Your task to perform on an android device: open app "Mercado Libre" (install if not already installed) and enter user name: "tolerating@yahoo.com" and password: "Kepler" Image 0: 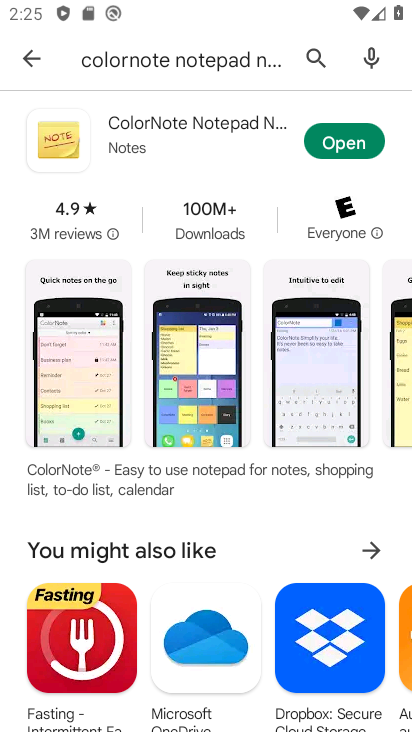
Step 0: click (316, 51)
Your task to perform on an android device: open app "Mercado Libre" (install if not already installed) and enter user name: "tolerating@yahoo.com" and password: "Kepler" Image 1: 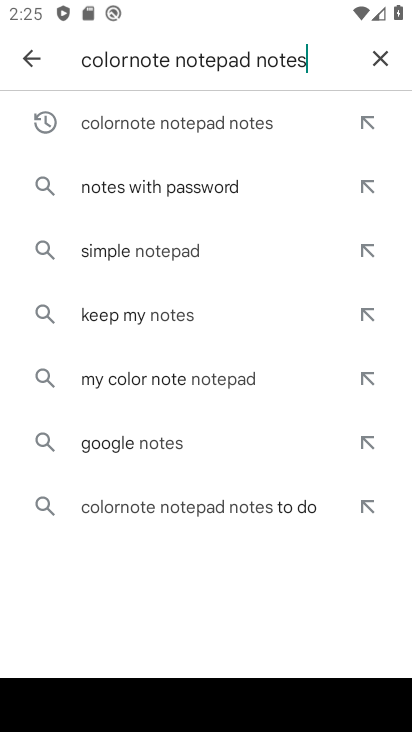
Step 1: click (371, 56)
Your task to perform on an android device: open app "Mercado Libre" (install if not already installed) and enter user name: "tolerating@yahoo.com" and password: "Kepler" Image 2: 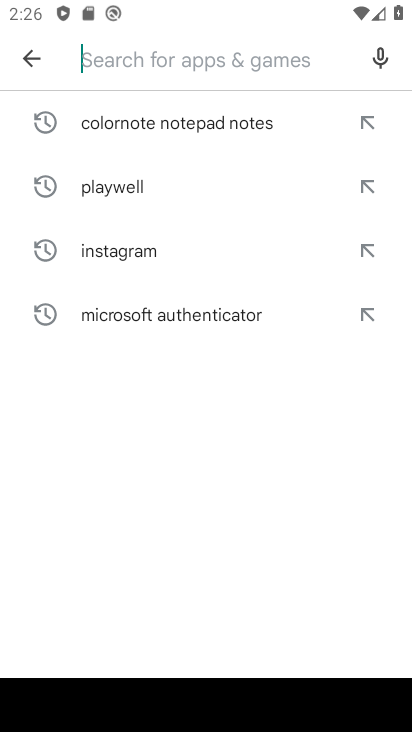
Step 2: click (150, 65)
Your task to perform on an android device: open app "Mercado Libre" (install if not already installed) and enter user name: "tolerating@yahoo.com" and password: "Kepler" Image 3: 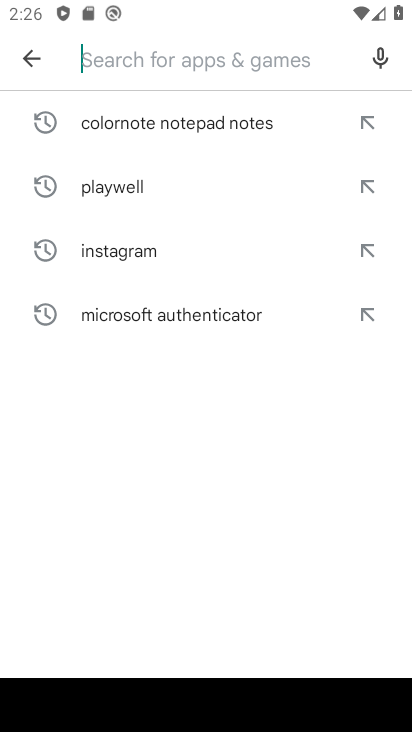
Step 3: type "Mercado Libre"
Your task to perform on an android device: open app "Mercado Libre" (install if not already installed) and enter user name: "tolerating@yahoo.com" and password: "Kepler" Image 4: 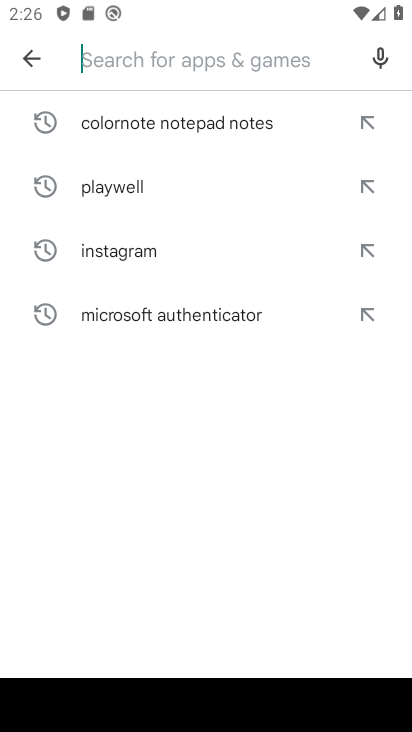
Step 4: click (261, 524)
Your task to perform on an android device: open app "Mercado Libre" (install if not already installed) and enter user name: "tolerating@yahoo.com" and password: "Kepler" Image 5: 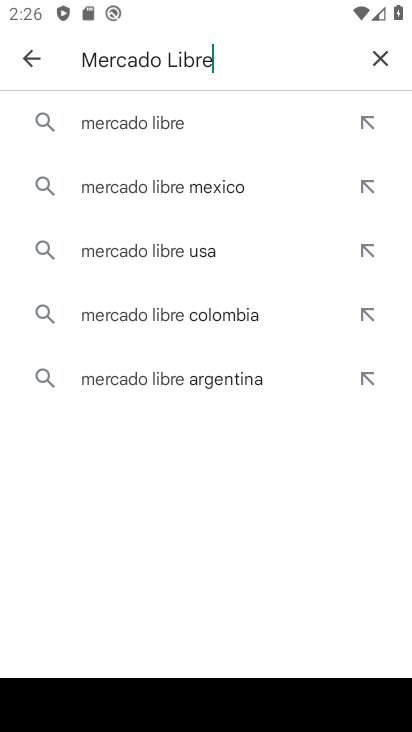
Step 5: click (157, 107)
Your task to perform on an android device: open app "Mercado Libre" (install if not already installed) and enter user name: "tolerating@yahoo.com" and password: "Kepler" Image 6: 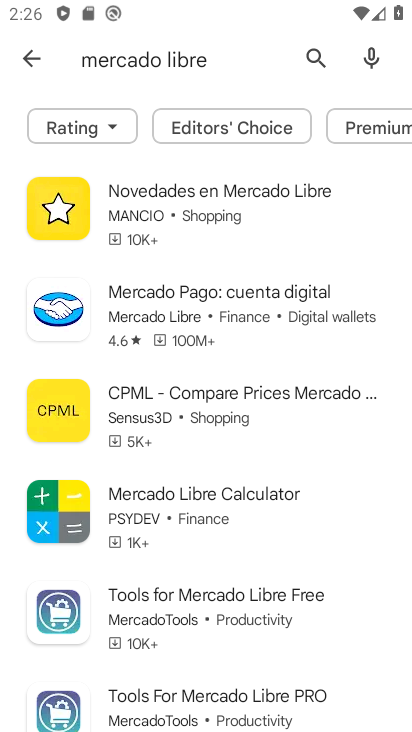
Step 6: click (272, 218)
Your task to perform on an android device: open app "Mercado Libre" (install if not already installed) and enter user name: "tolerating@yahoo.com" and password: "Kepler" Image 7: 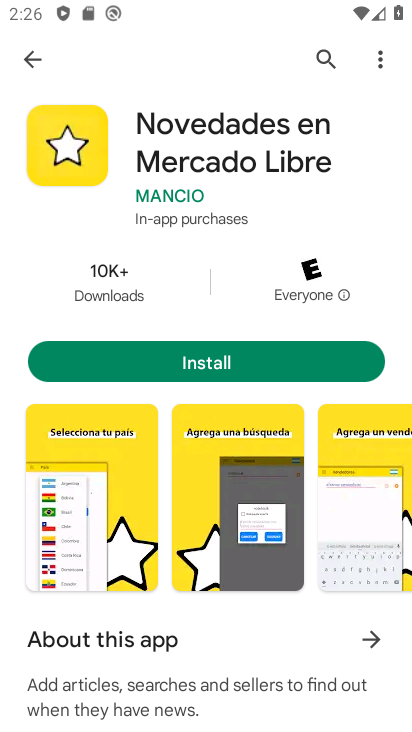
Step 7: click (200, 359)
Your task to perform on an android device: open app "Mercado Libre" (install if not already installed) and enter user name: "tolerating@yahoo.com" and password: "Kepler" Image 8: 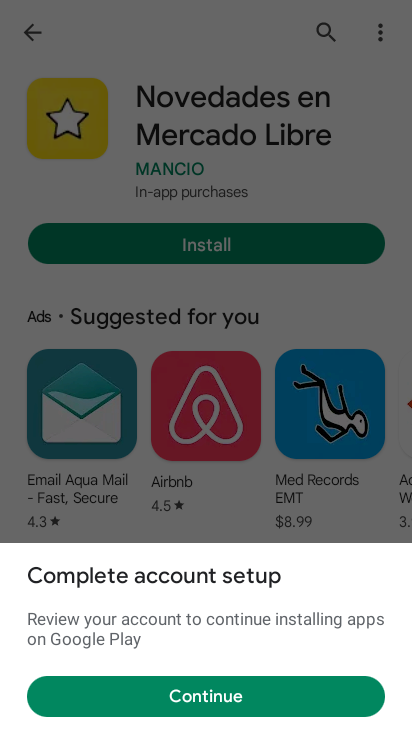
Step 8: click (125, 686)
Your task to perform on an android device: open app "Mercado Libre" (install if not already installed) and enter user name: "tolerating@yahoo.com" and password: "Kepler" Image 9: 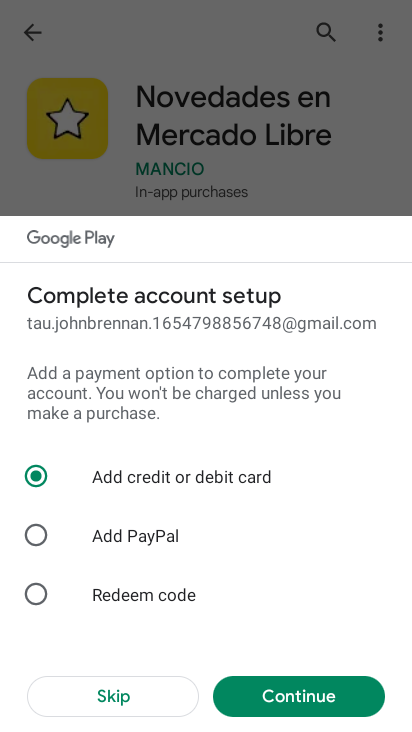
Step 9: click (97, 689)
Your task to perform on an android device: open app "Mercado Libre" (install if not already installed) and enter user name: "tolerating@yahoo.com" and password: "Kepler" Image 10: 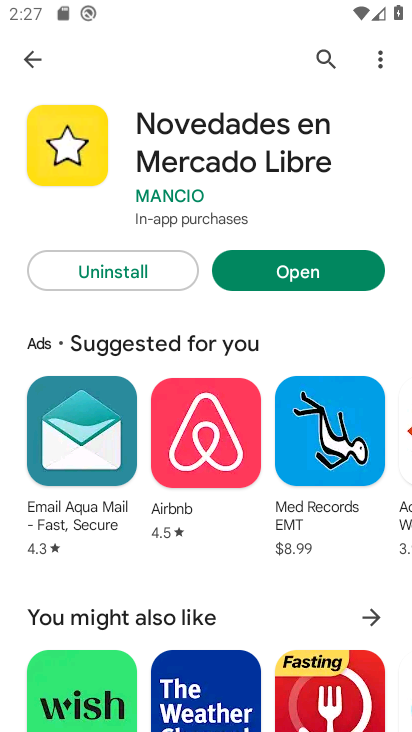
Step 10: click (299, 263)
Your task to perform on an android device: open app "Mercado Libre" (install if not already installed) and enter user name: "tolerating@yahoo.com" and password: "Kepler" Image 11: 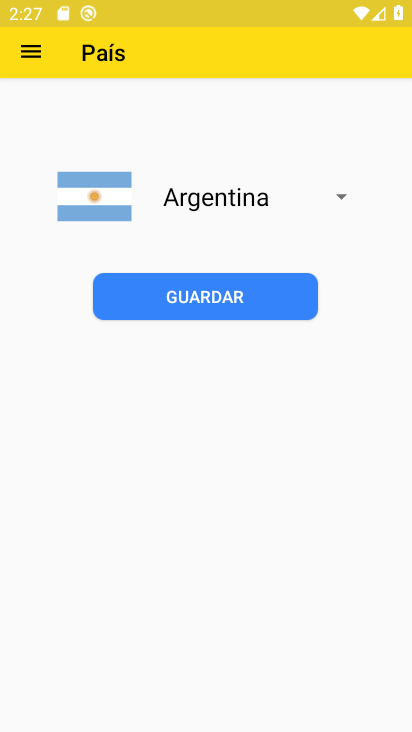
Step 11: click (339, 207)
Your task to perform on an android device: open app "Mercado Libre" (install if not already installed) and enter user name: "tolerating@yahoo.com" and password: "Kepler" Image 12: 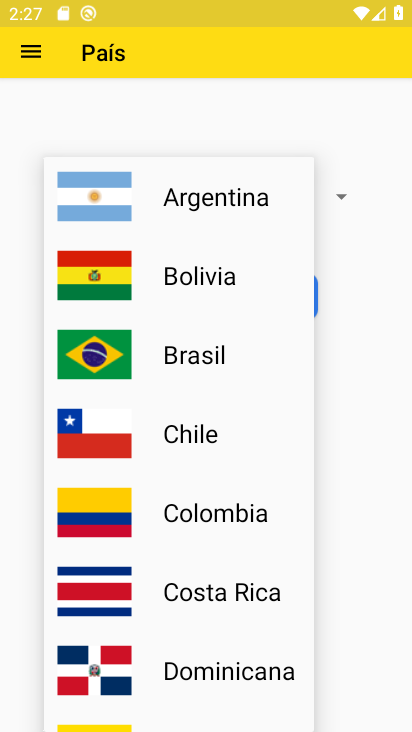
Step 12: drag from (183, 621) to (256, 172)
Your task to perform on an android device: open app "Mercado Libre" (install if not already installed) and enter user name: "tolerating@yahoo.com" and password: "Kepler" Image 13: 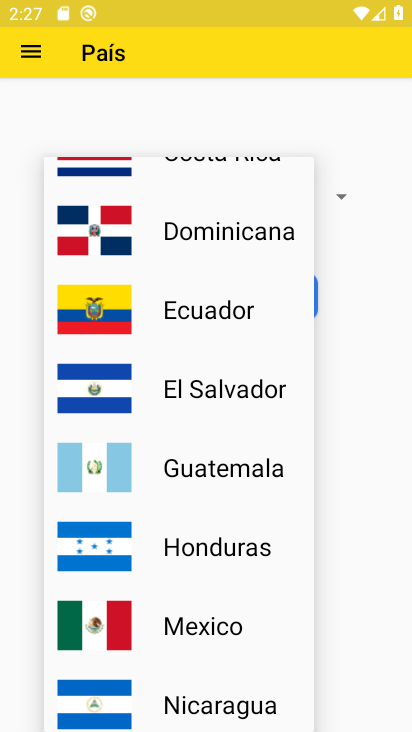
Step 13: drag from (225, 679) to (269, 159)
Your task to perform on an android device: open app "Mercado Libre" (install if not already installed) and enter user name: "tolerating@yahoo.com" and password: "Kepler" Image 14: 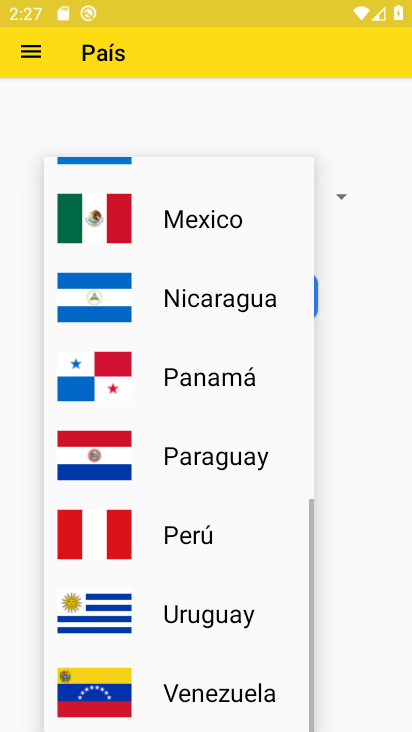
Step 14: click (232, 462)
Your task to perform on an android device: open app "Mercado Libre" (install if not already installed) and enter user name: "tolerating@yahoo.com" and password: "Kepler" Image 15: 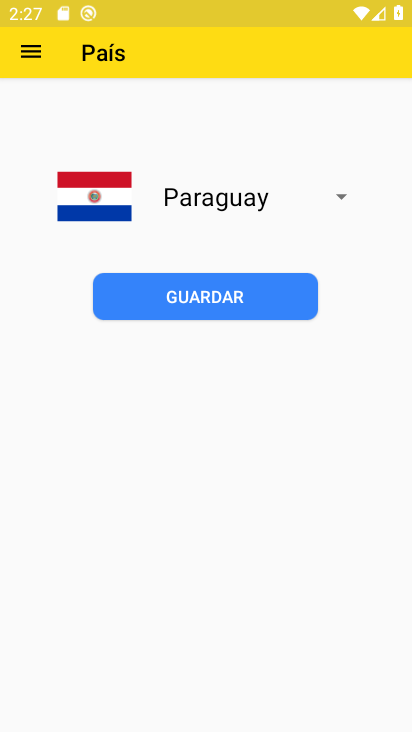
Step 15: click (219, 299)
Your task to perform on an android device: open app "Mercado Libre" (install if not already installed) and enter user name: "tolerating@yahoo.com" and password: "Kepler" Image 16: 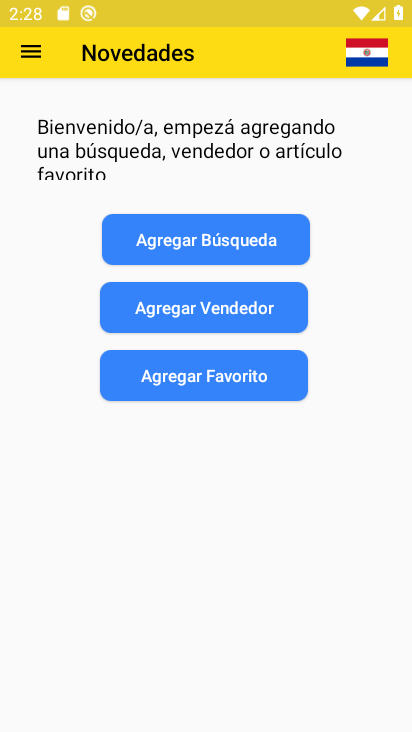
Step 16: task complete